Your task to perform on an android device: install app "Airtel Thanks" Image 0: 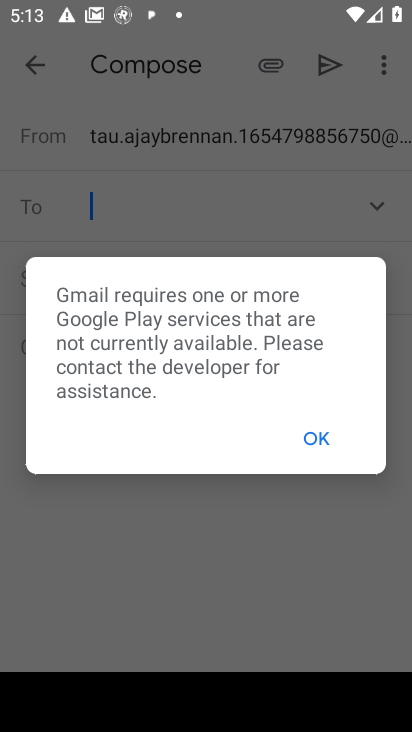
Step 0: press home button
Your task to perform on an android device: install app "Airtel Thanks" Image 1: 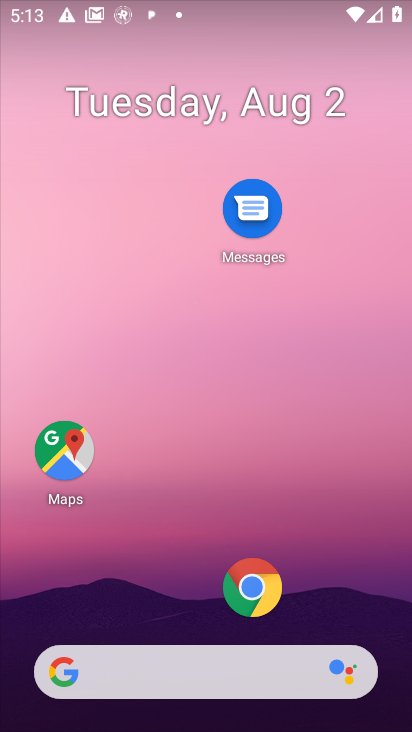
Step 1: drag from (157, 583) to (167, 150)
Your task to perform on an android device: install app "Airtel Thanks" Image 2: 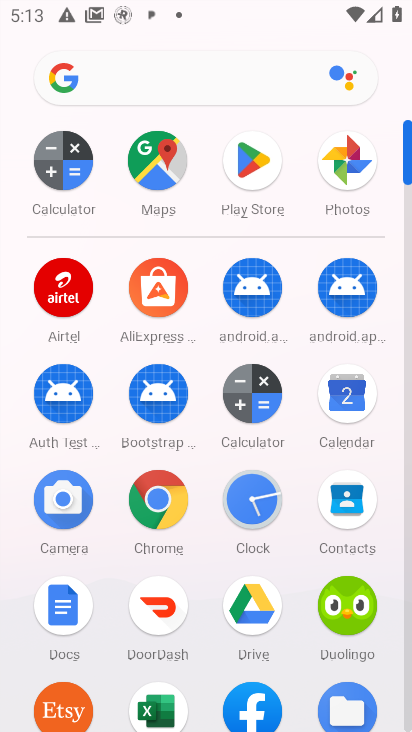
Step 2: click (236, 162)
Your task to perform on an android device: install app "Airtel Thanks" Image 3: 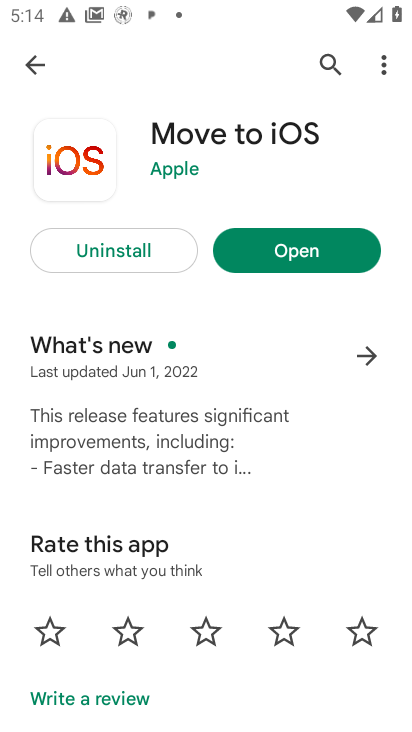
Step 3: click (387, 57)
Your task to perform on an android device: install app "Airtel Thanks" Image 4: 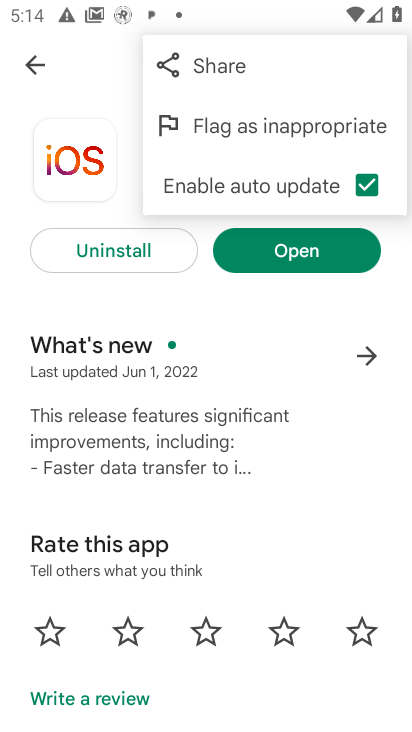
Step 4: click (100, 101)
Your task to perform on an android device: install app "Airtel Thanks" Image 5: 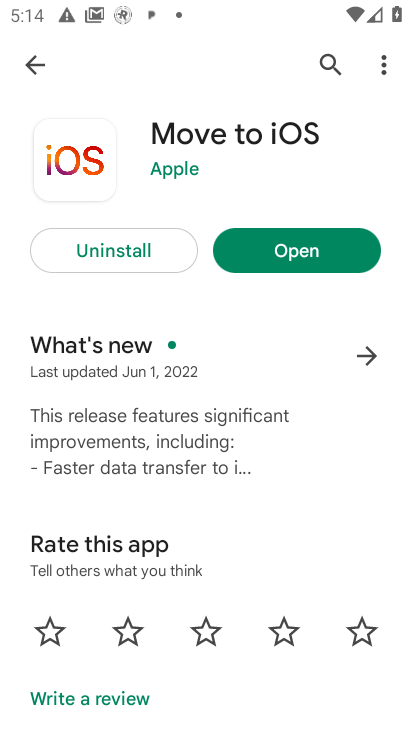
Step 5: click (324, 61)
Your task to perform on an android device: install app "Airtel Thanks" Image 6: 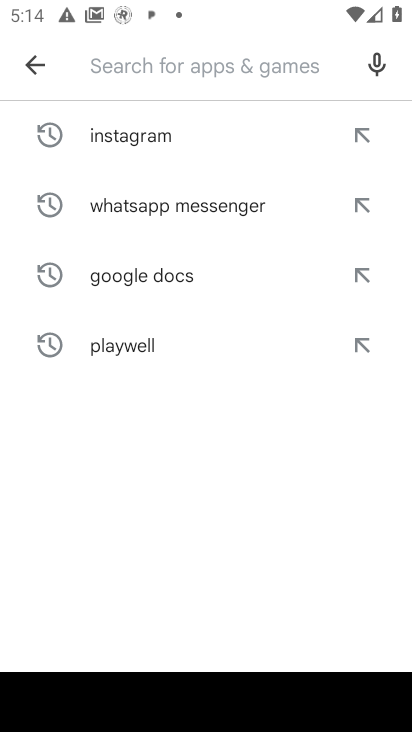
Step 6: type "Airtel Thanks"
Your task to perform on an android device: install app "Airtel Thanks" Image 7: 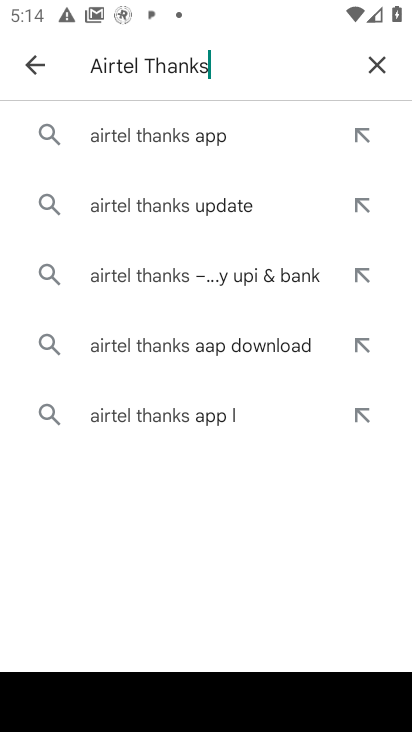
Step 7: click (133, 147)
Your task to perform on an android device: install app "Airtel Thanks" Image 8: 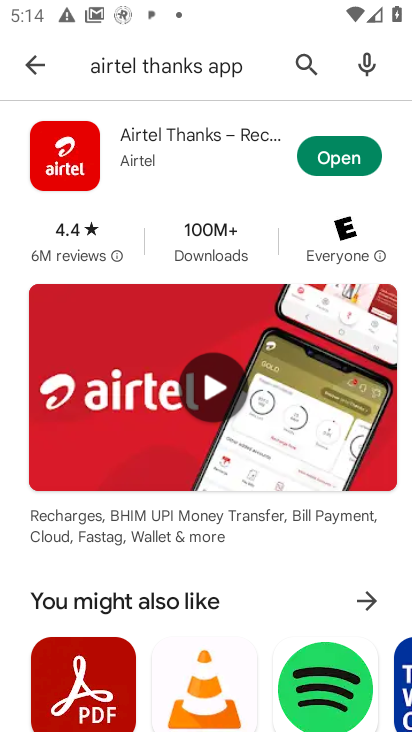
Step 8: task complete